Your task to perform on an android device: Open Google Chrome and click the shortcut for Amazon.com Image 0: 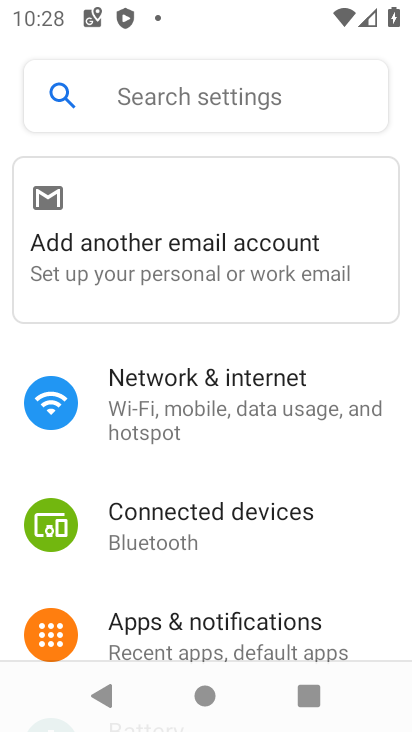
Step 0: press home button
Your task to perform on an android device: Open Google Chrome and click the shortcut for Amazon.com Image 1: 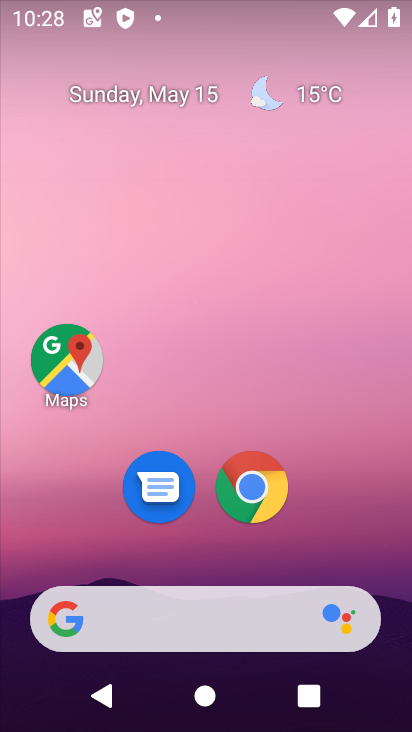
Step 1: click (254, 499)
Your task to perform on an android device: Open Google Chrome and click the shortcut for Amazon.com Image 2: 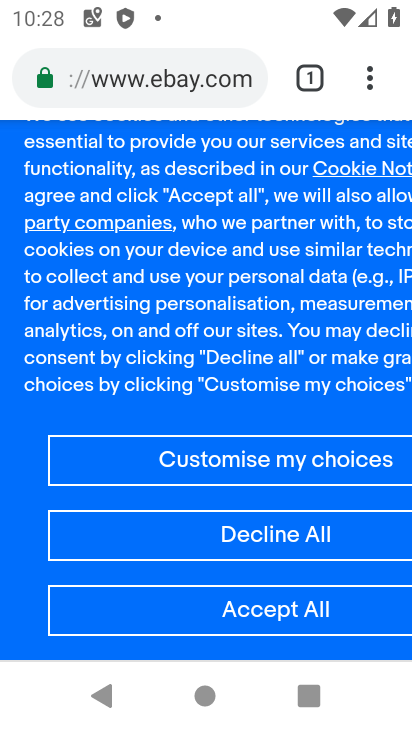
Step 2: click (177, 70)
Your task to perform on an android device: Open Google Chrome and click the shortcut for Amazon.com Image 3: 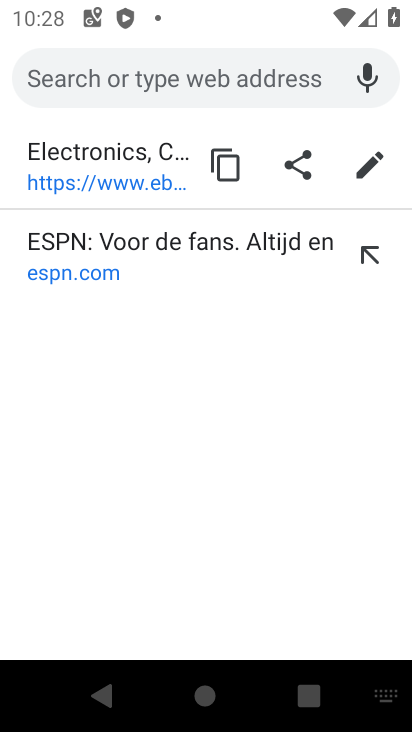
Step 3: type "amazon.com"
Your task to perform on an android device: Open Google Chrome and click the shortcut for Amazon.com Image 4: 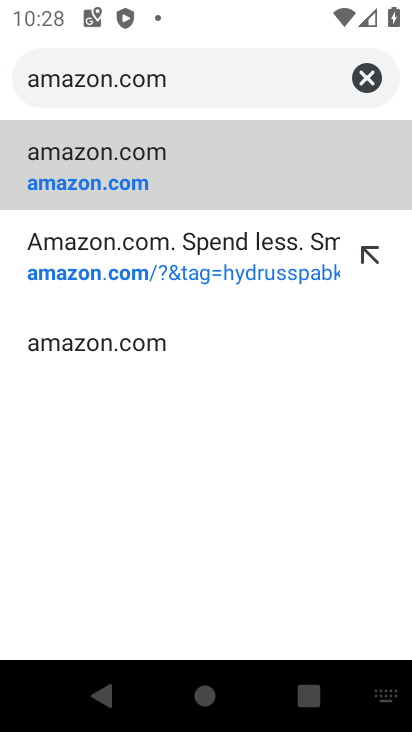
Step 4: click (368, 82)
Your task to perform on an android device: Open Google Chrome and click the shortcut for Amazon.com Image 5: 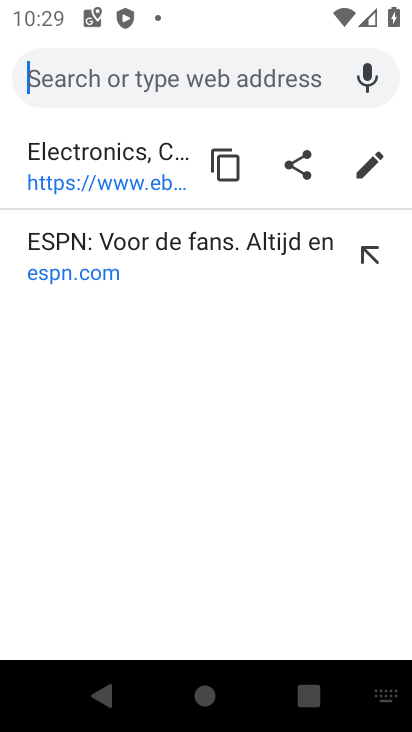
Step 5: press back button
Your task to perform on an android device: Open Google Chrome and click the shortcut for Amazon.com Image 6: 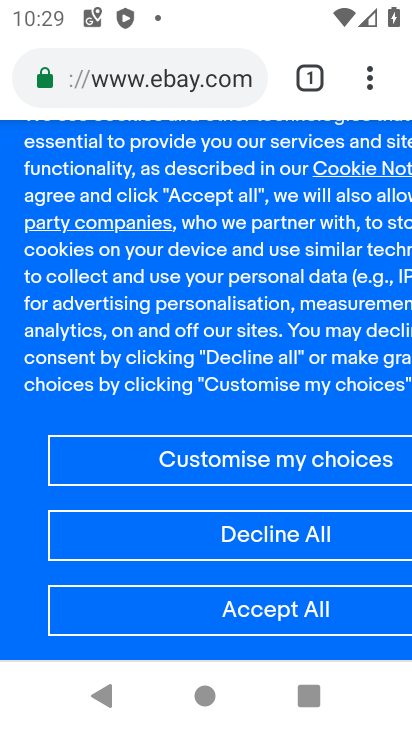
Step 6: click (367, 83)
Your task to perform on an android device: Open Google Chrome and click the shortcut for Amazon.com Image 7: 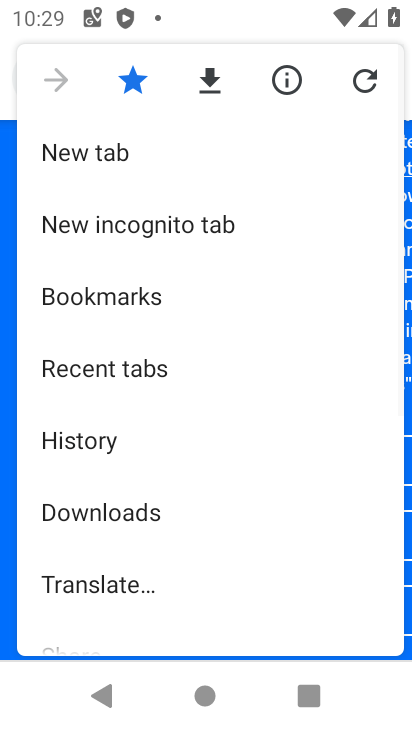
Step 7: click (87, 151)
Your task to perform on an android device: Open Google Chrome and click the shortcut for Amazon.com Image 8: 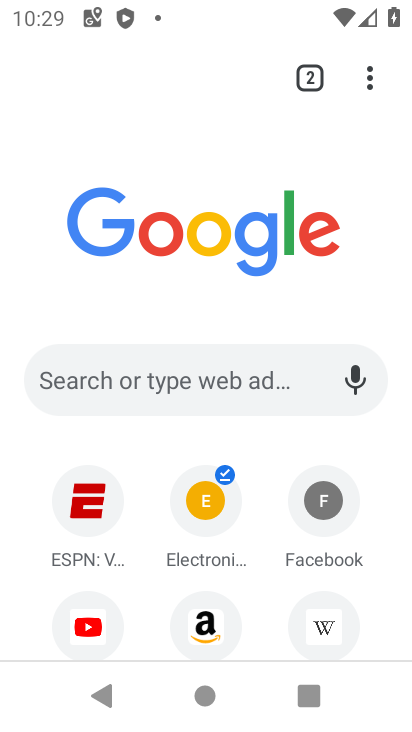
Step 8: click (204, 629)
Your task to perform on an android device: Open Google Chrome and click the shortcut for Amazon.com Image 9: 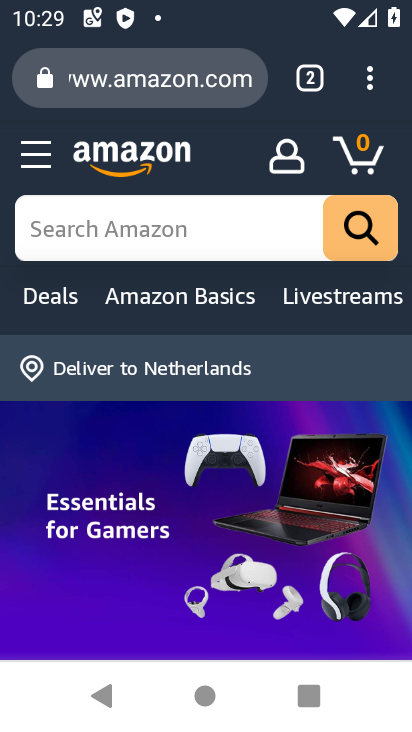
Step 9: task complete